Your task to perform on an android device: clear all cookies in the chrome app Image 0: 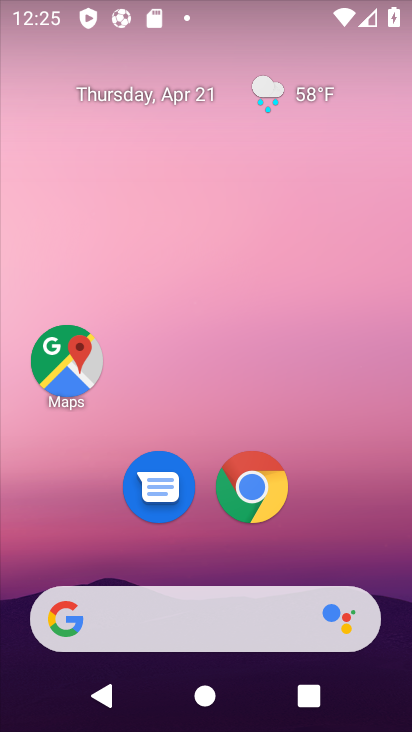
Step 0: click (263, 495)
Your task to perform on an android device: clear all cookies in the chrome app Image 1: 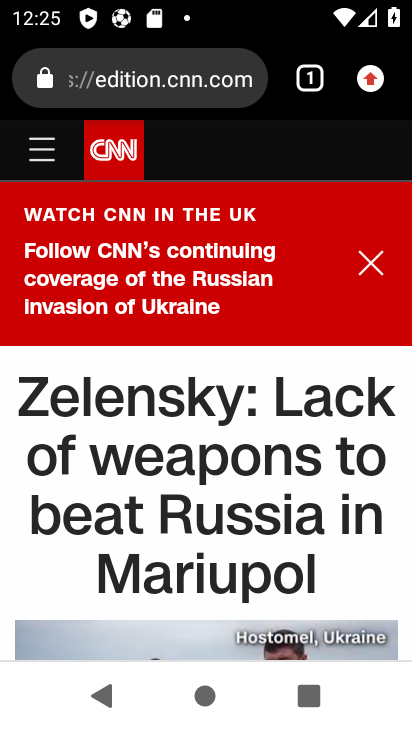
Step 1: click (371, 82)
Your task to perform on an android device: clear all cookies in the chrome app Image 2: 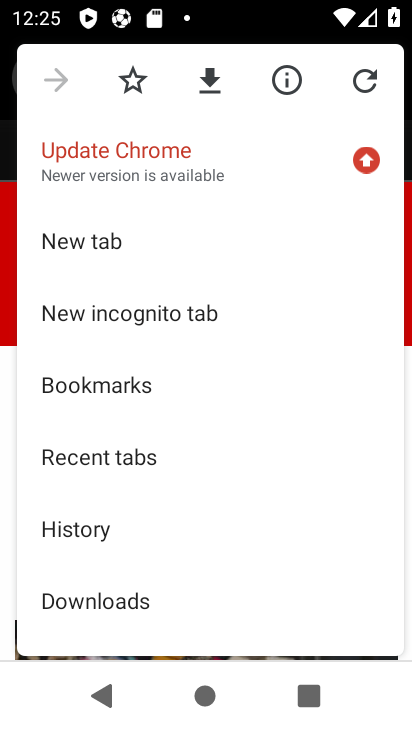
Step 2: drag from (228, 548) to (224, 195)
Your task to perform on an android device: clear all cookies in the chrome app Image 3: 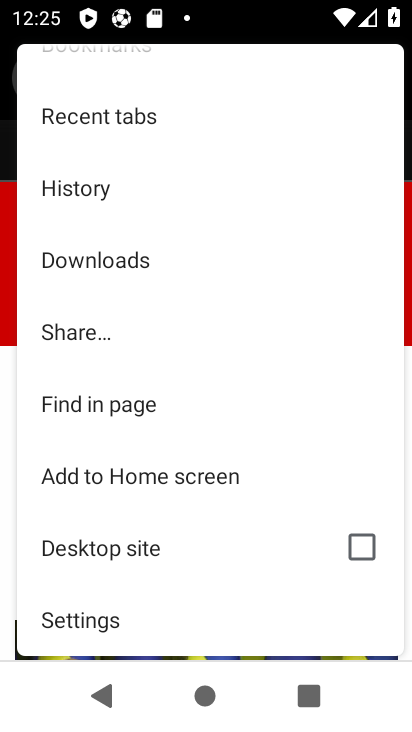
Step 3: click (78, 624)
Your task to perform on an android device: clear all cookies in the chrome app Image 4: 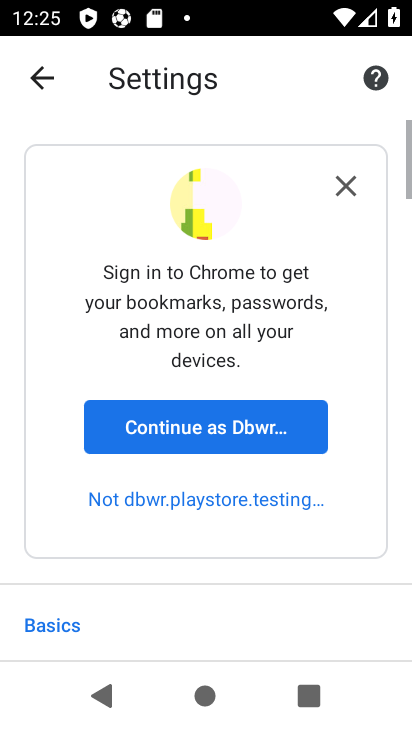
Step 4: drag from (221, 569) to (208, 238)
Your task to perform on an android device: clear all cookies in the chrome app Image 5: 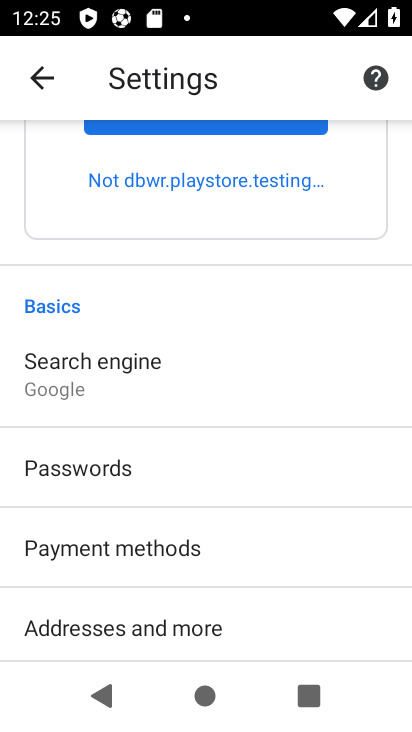
Step 5: drag from (174, 498) to (172, 171)
Your task to perform on an android device: clear all cookies in the chrome app Image 6: 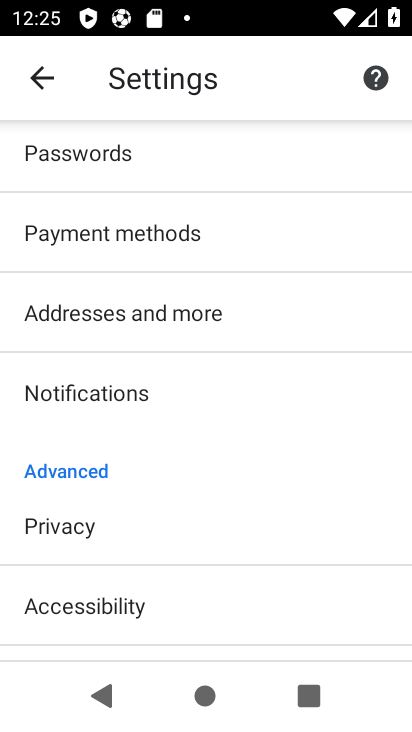
Step 6: click (80, 531)
Your task to perform on an android device: clear all cookies in the chrome app Image 7: 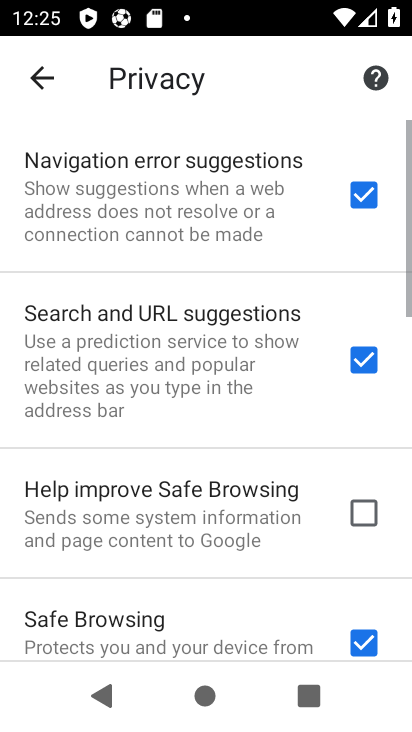
Step 7: drag from (182, 556) to (178, 178)
Your task to perform on an android device: clear all cookies in the chrome app Image 8: 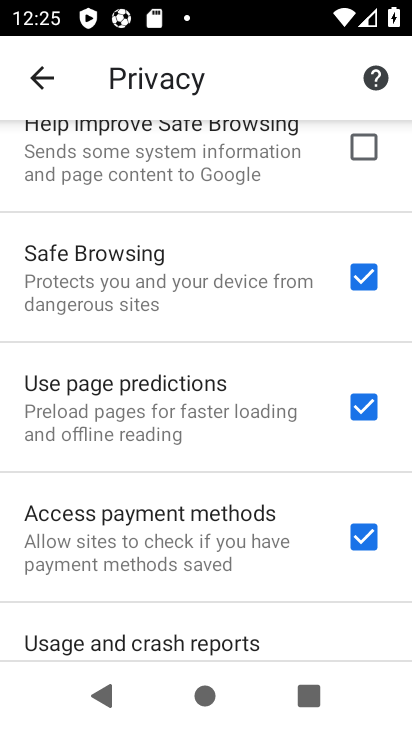
Step 8: drag from (143, 500) to (144, 211)
Your task to perform on an android device: clear all cookies in the chrome app Image 9: 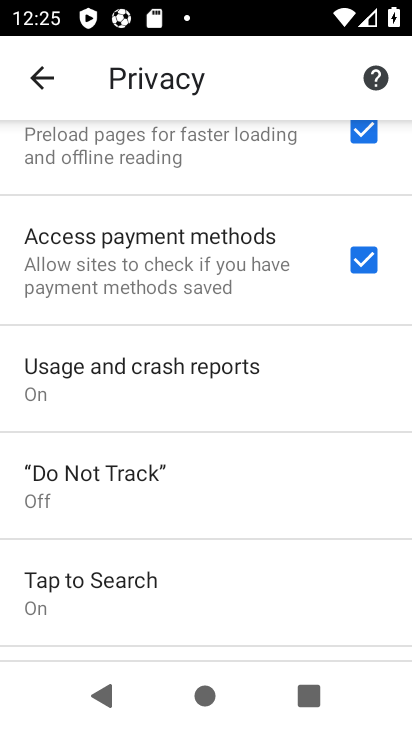
Step 9: drag from (146, 437) to (145, 166)
Your task to perform on an android device: clear all cookies in the chrome app Image 10: 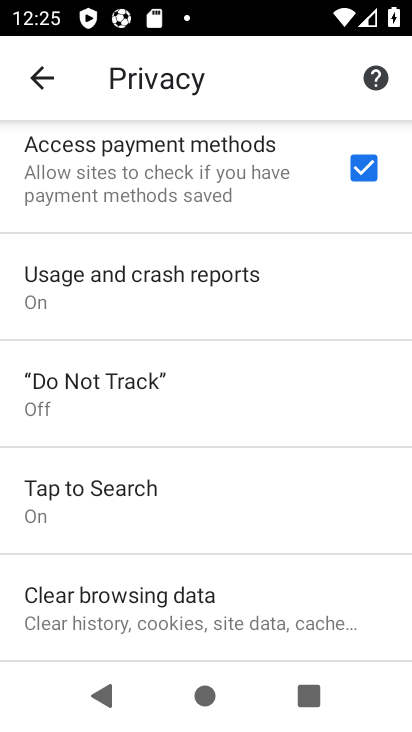
Step 10: click (112, 601)
Your task to perform on an android device: clear all cookies in the chrome app Image 11: 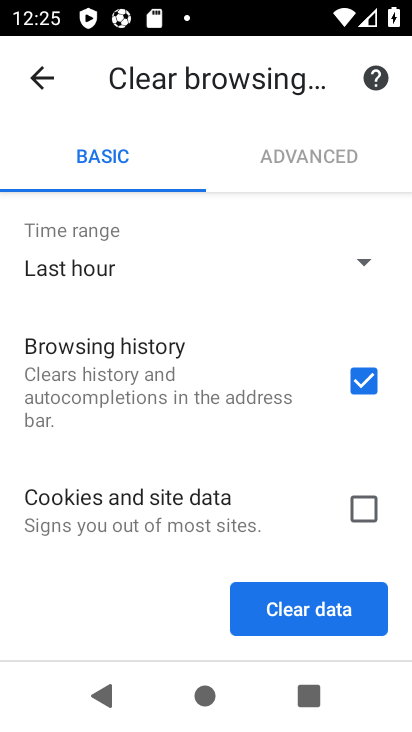
Step 11: click (358, 382)
Your task to perform on an android device: clear all cookies in the chrome app Image 12: 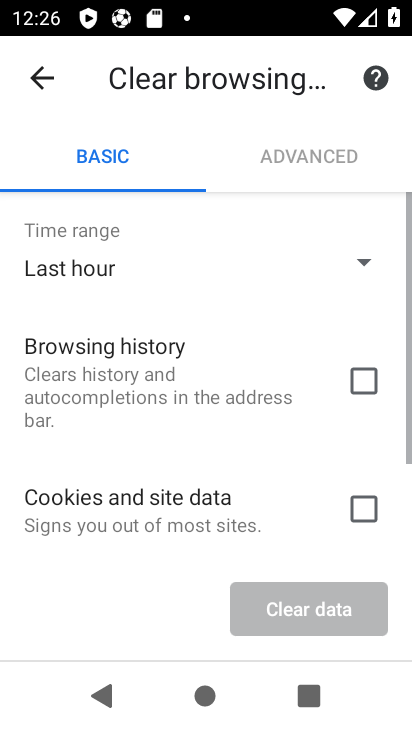
Step 12: click (354, 511)
Your task to perform on an android device: clear all cookies in the chrome app Image 13: 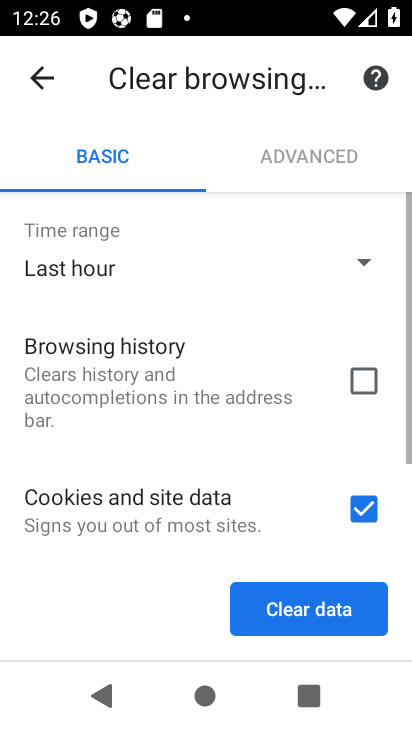
Step 13: drag from (112, 493) to (111, 116)
Your task to perform on an android device: clear all cookies in the chrome app Image 14: 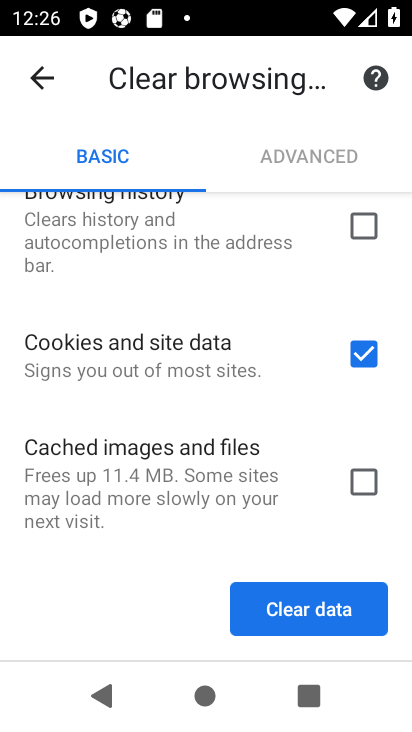
Step 14: click (319, 615)
Your task to perform on an android device: clear all cookies in the chrome app Image 15: 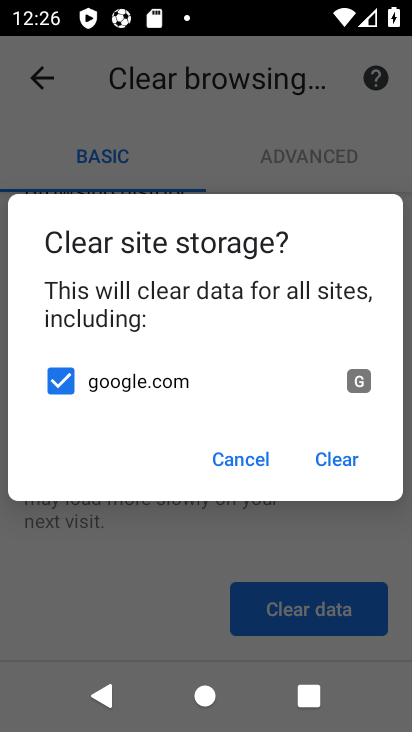
Step 15: click (345, 460)
Your task to perform on an android device: clear all cookies in the chrome app Image 16: 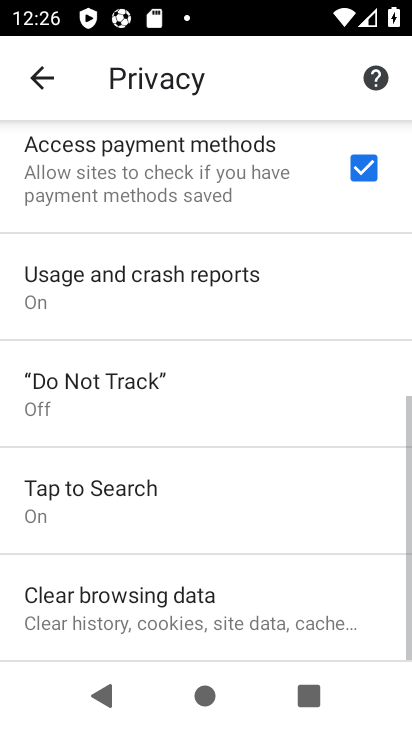
Step 16: task complete